Your task to perform on an android device: toggle priority inbox in the gmail app Image 0: 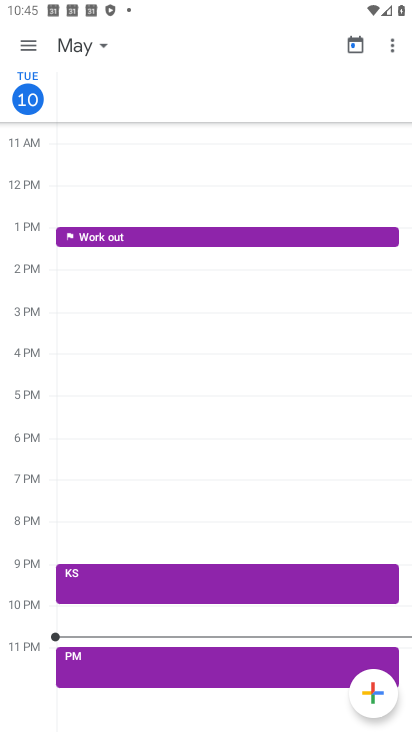
Step 0: press home button
Your task to perform on an android device: toggle priority inbox in the gmail app Image 1: 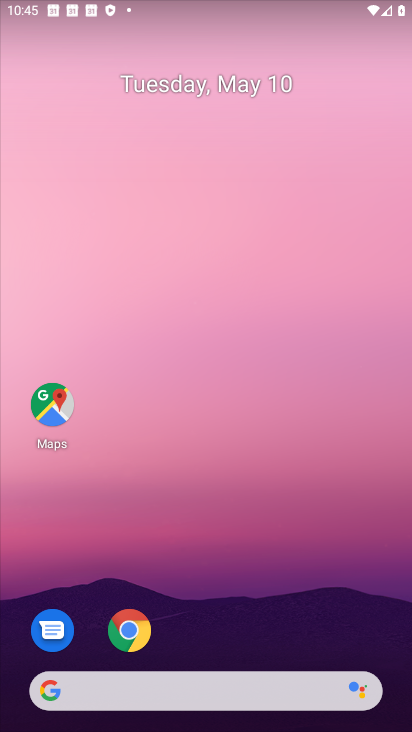
Step 1: drag from (200, 722) to (236, 253)
Your task to perform on an android device: toggle priority inbox in the gmail app Image 2: 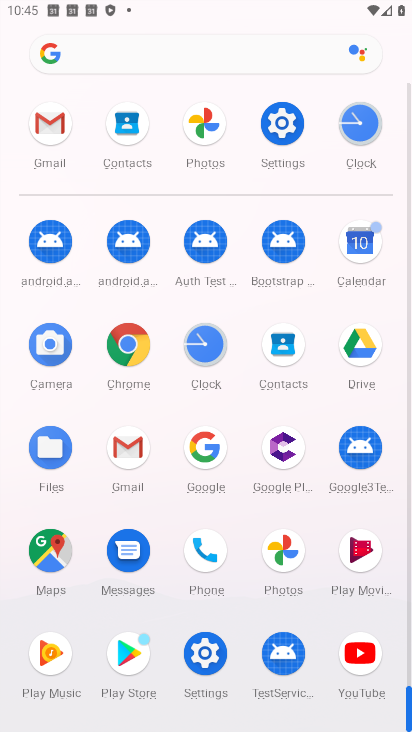
Step 2: click (119, 441)
Your task to perform on an android device: toggle priority inbox in the gmail app Image 3: 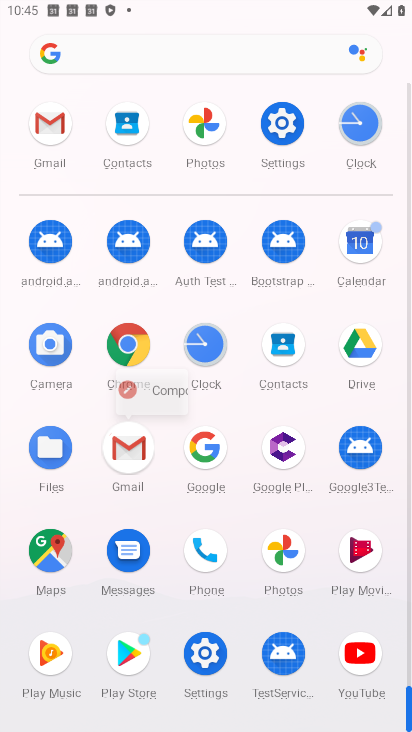
Step 3: click (119, 441)
Your task to perform on an android device: toggle priority inbox in the gmail app Image 4: 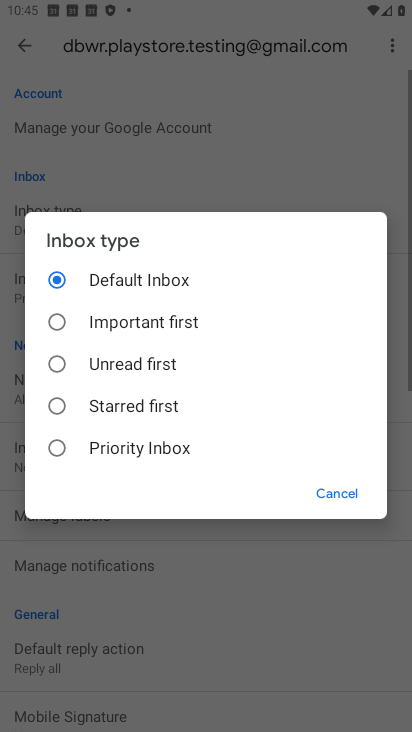
Step 4: click (119, 441)
Your task to perform on an android device: toggle priority inbox in the gmail app Image 5: 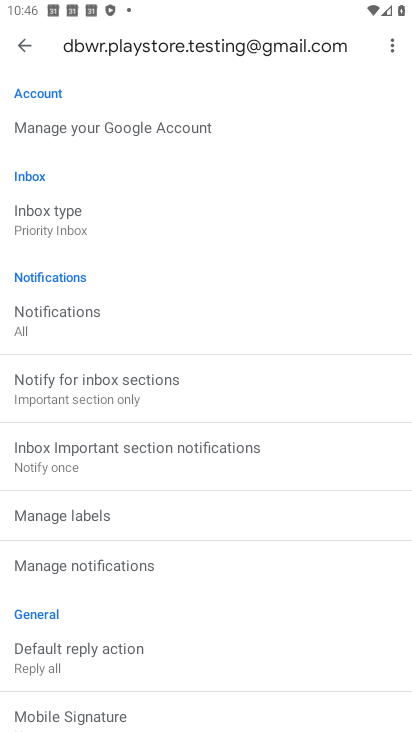
Step 5: task complete